Your task to perform on an android device: Open Maps and search for coffee Image 0: 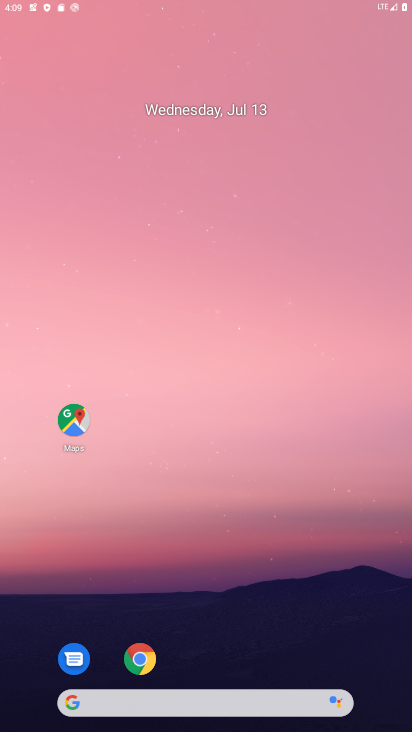
Step 0: press home button
Your task to perform on an android device: Open Maps and search for coffee Image 1: 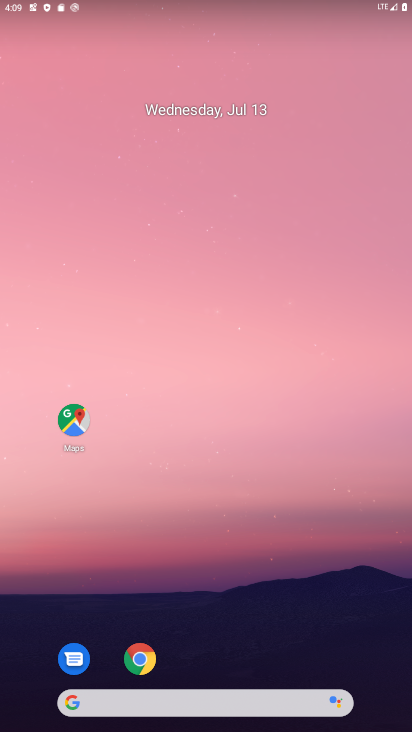
Step 1: click (72, 414)
Your task to perform on an android device: Open Maps and search for coffee Image 2: 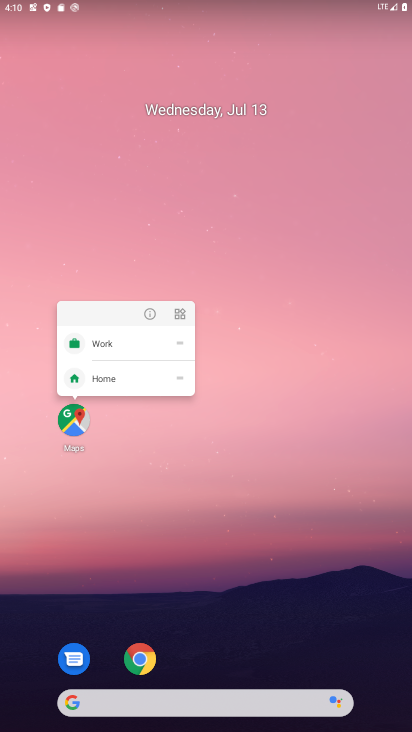
Step 2: click (72, 417)
Your task to perform on an android device: Open Maps and search for coffee Image 3: 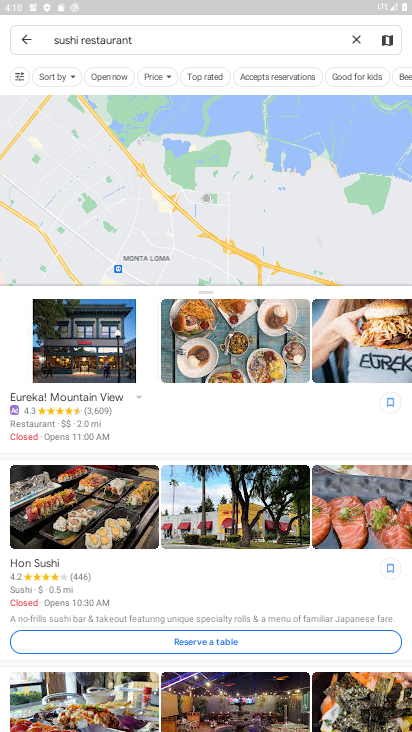
Step 3: click (351, 36)
Your task to perform on an android device: Open Maps and search for coffee Image 4: 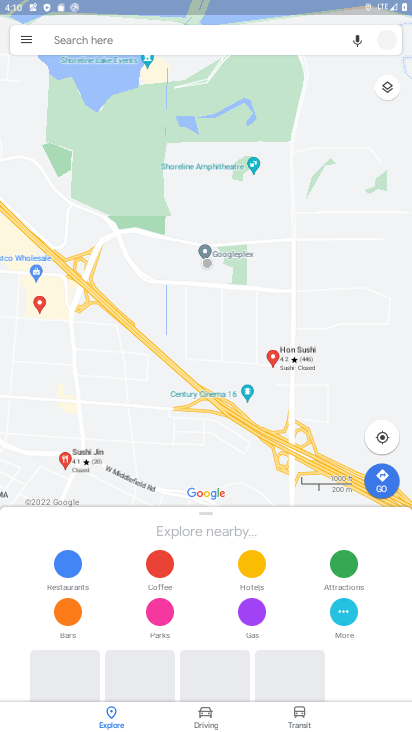
Step 4: click (115, 36)
Your task to perform on an android device: Open Maps and search for coffee Image 5: 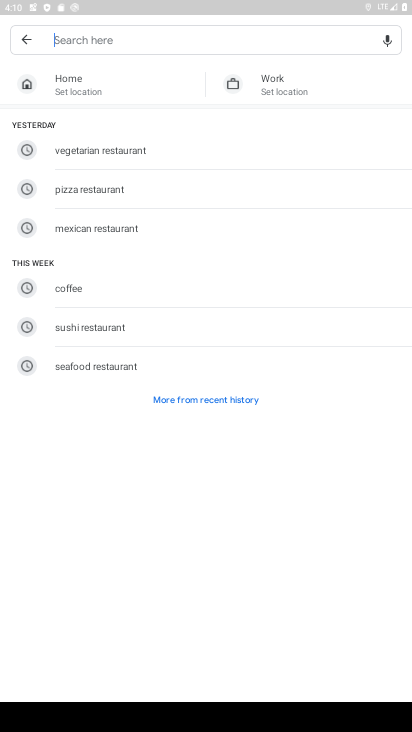
Step 5: click (94, 282)
Your task to perform on an android device: Open Maps and search for coffee Image 6: 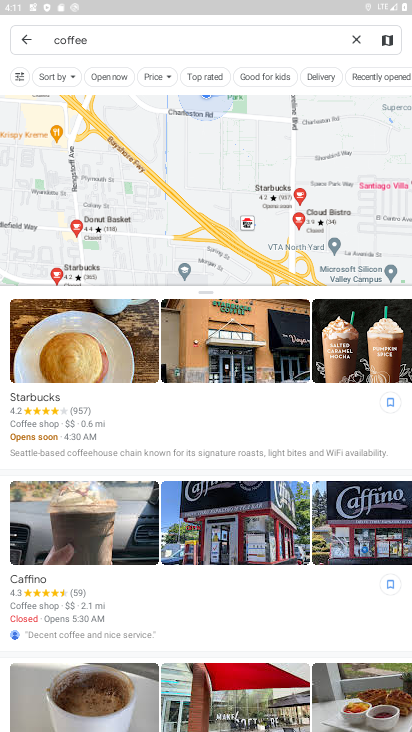
Step 6: task complete